Your task to perform on an android device: open chrome privacy settings Image 0: 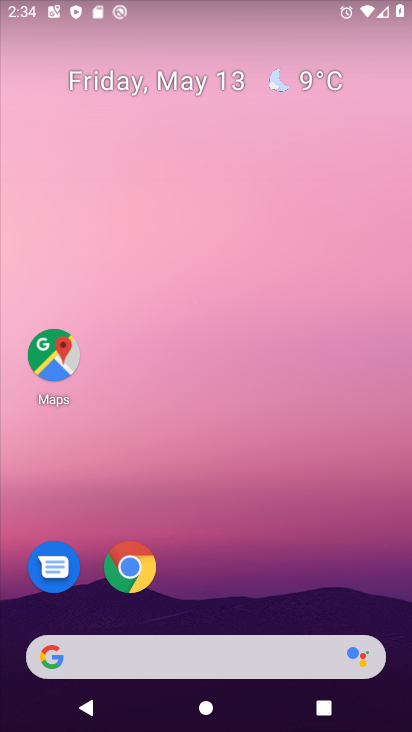
Step 0: drag from (244, 615) to (312, 164)
Your task to perform on an android device: open chrome privacy settings Image 1: 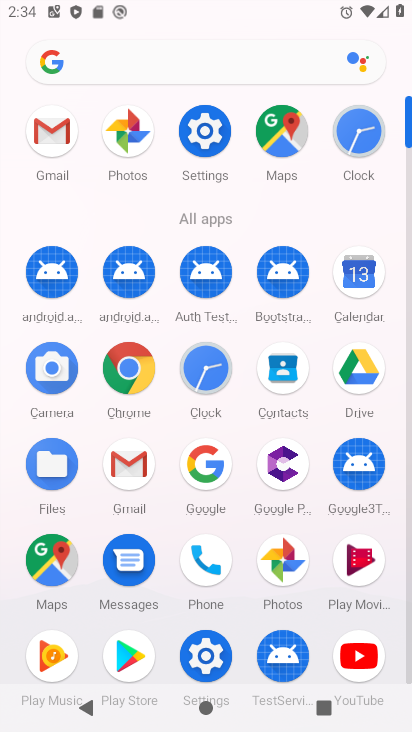
Step 1: click (141, 373)
Your task to perform on an android device: open chrome privacy settings Image 2: 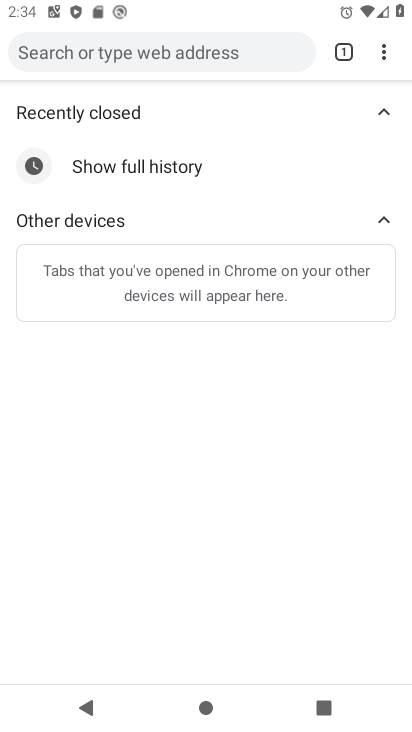
Step 2: click (382, 59)
Your task to perform on an android device: open chrome privacy settings Image 3: 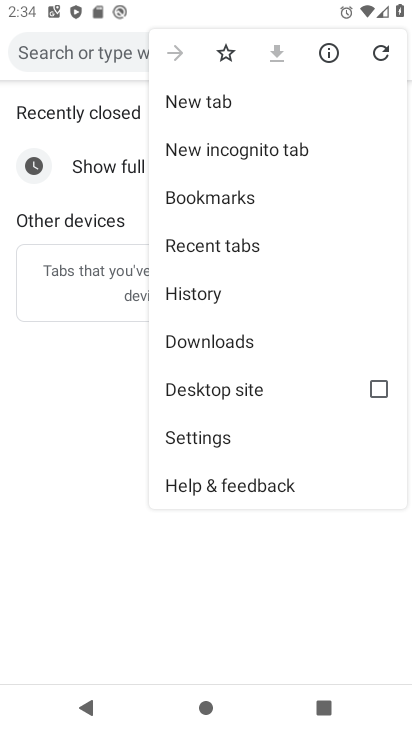
Step 3: click (217, 440)
Your task to perform on an android device: open chrome privacy settings Image 4: 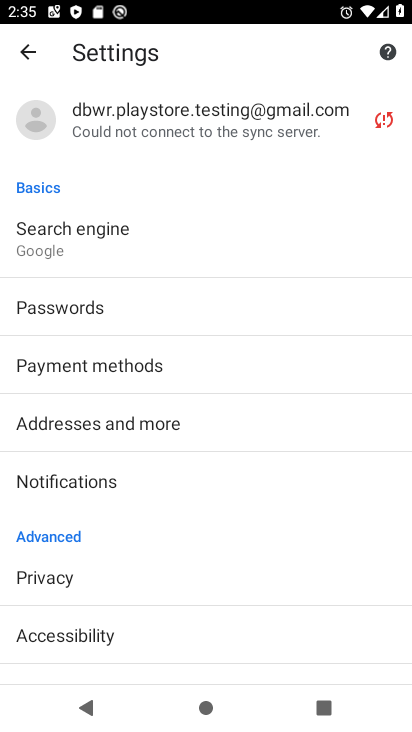
Step 4: click (76, 584)
Your task to perform on an android device: open chrome privacy settings Image 5: 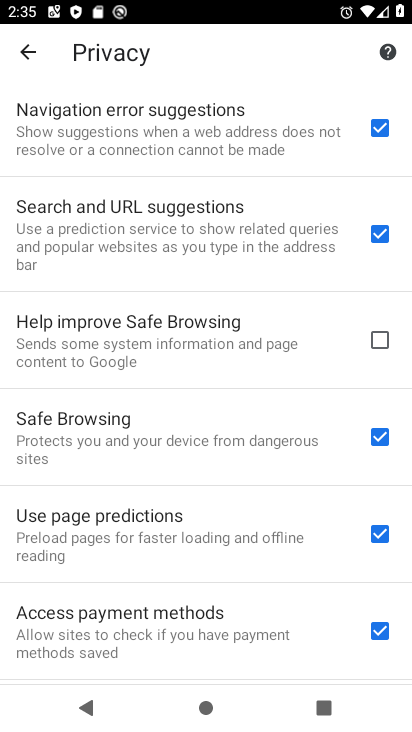
Step 5: task complete